Your task to perform on an android device: Go to eBay Image 0: 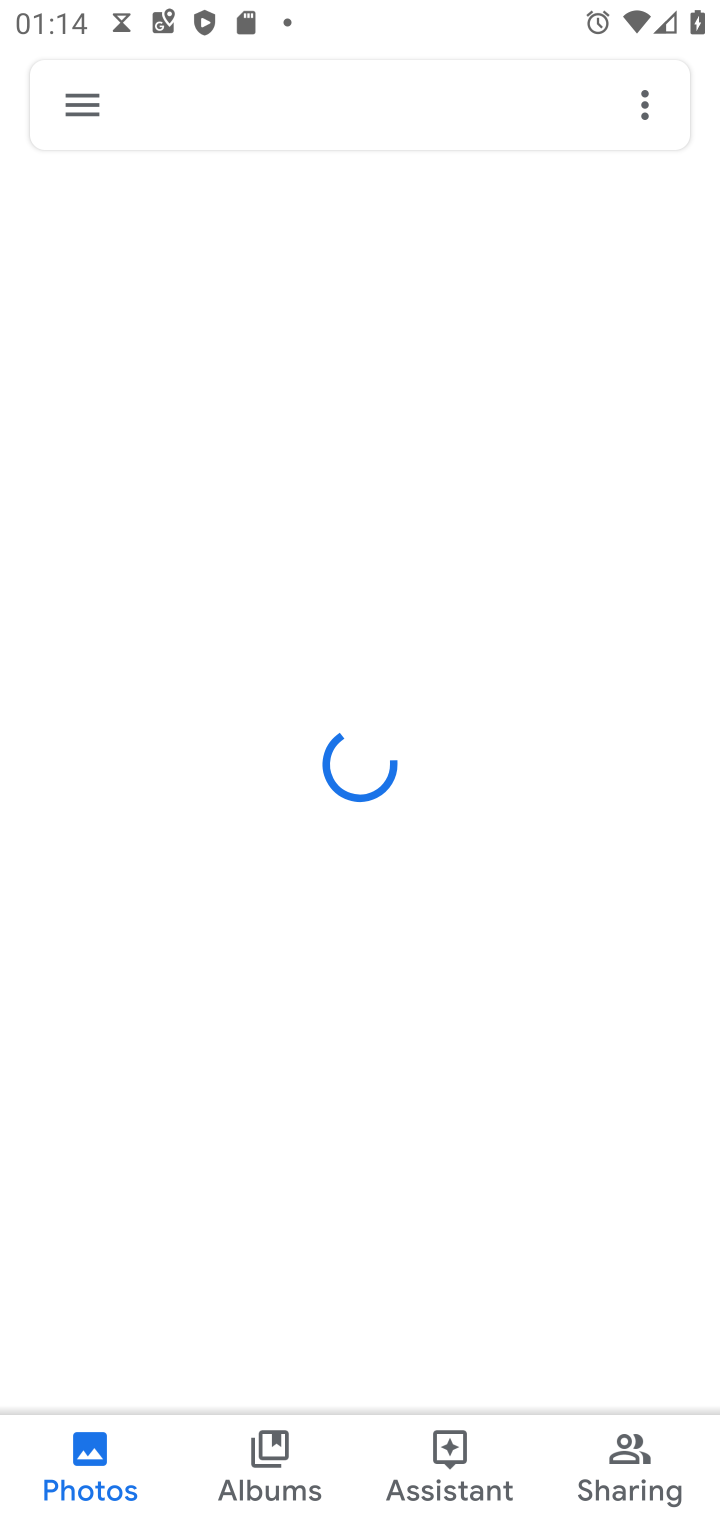
Step 0: press home button
Your task to perform on an android device: Go to eBay Image 1: 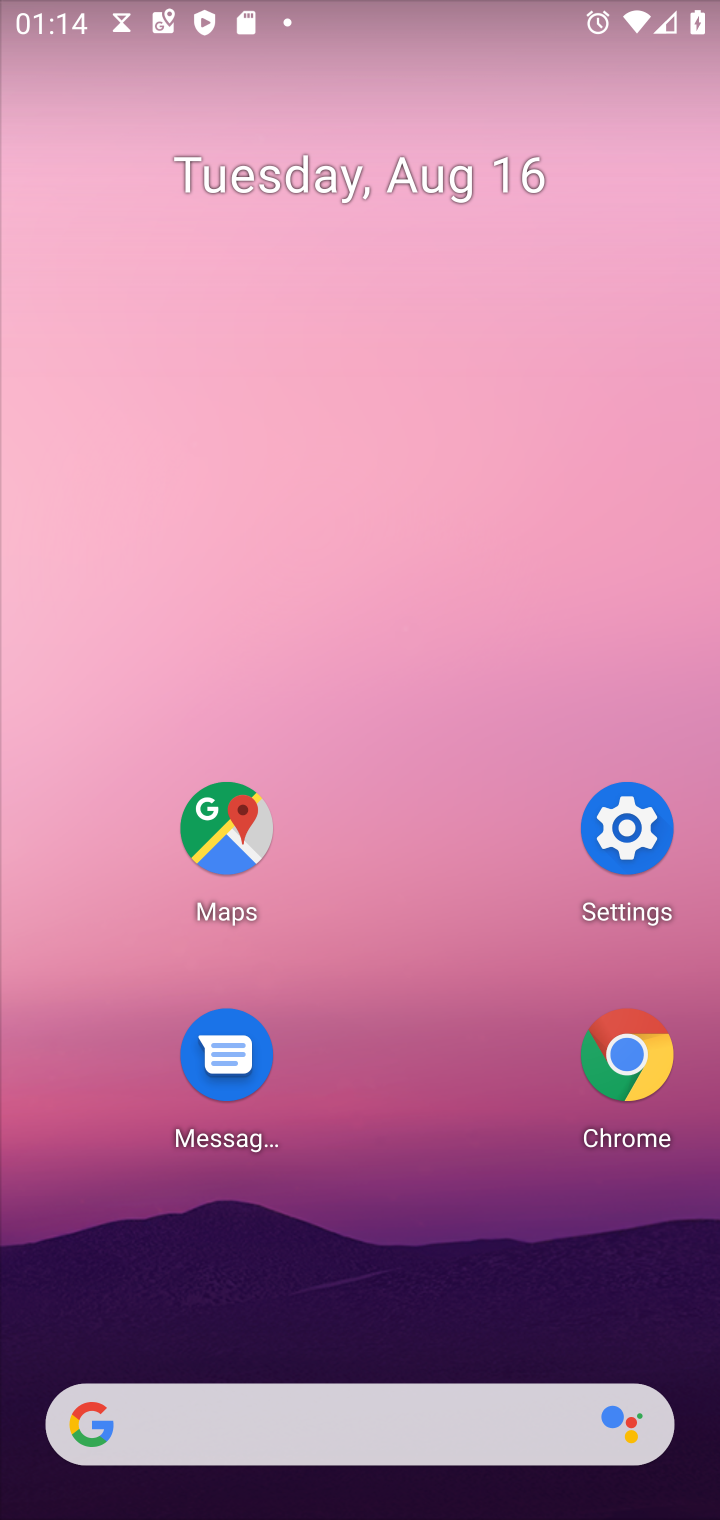
Step 1: click (640, 1054)
Your task to perform on an android device: Go to eBay Image 2: 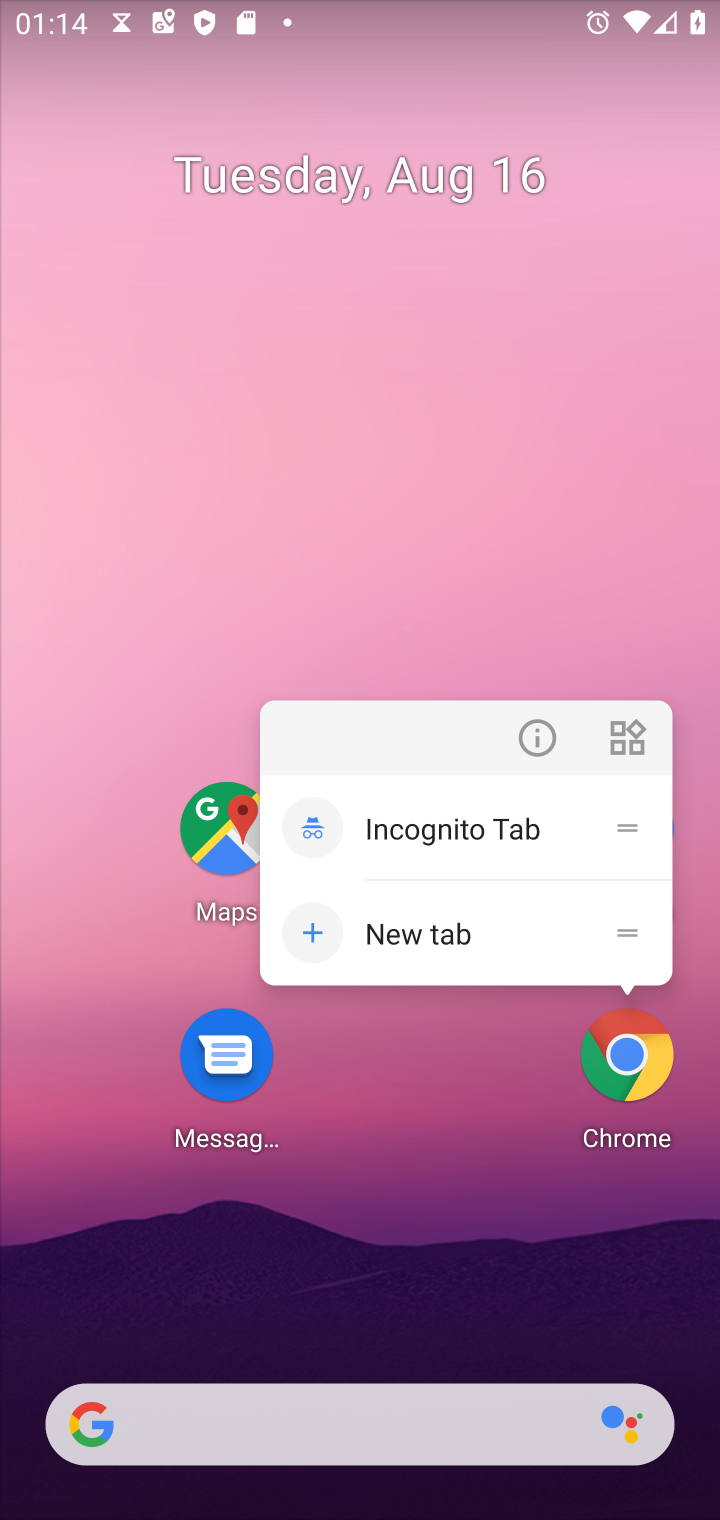
Step 2: click (640, 1061)
Your task to perform on an android device: Go to eBay Image 3: 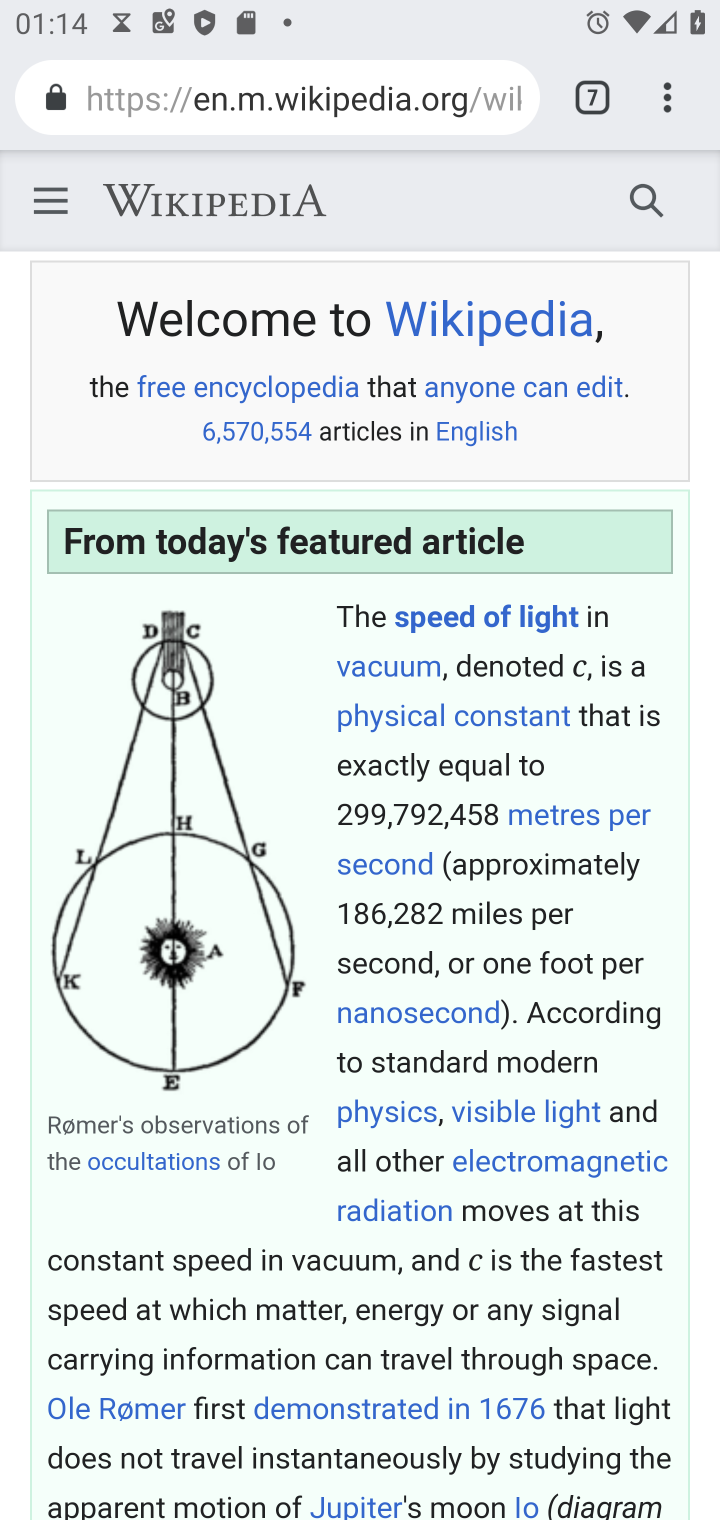
Step 3: drag from (676, 94) to (445, 211)
Your task to perform on an android device: Go to eBay Image 4: 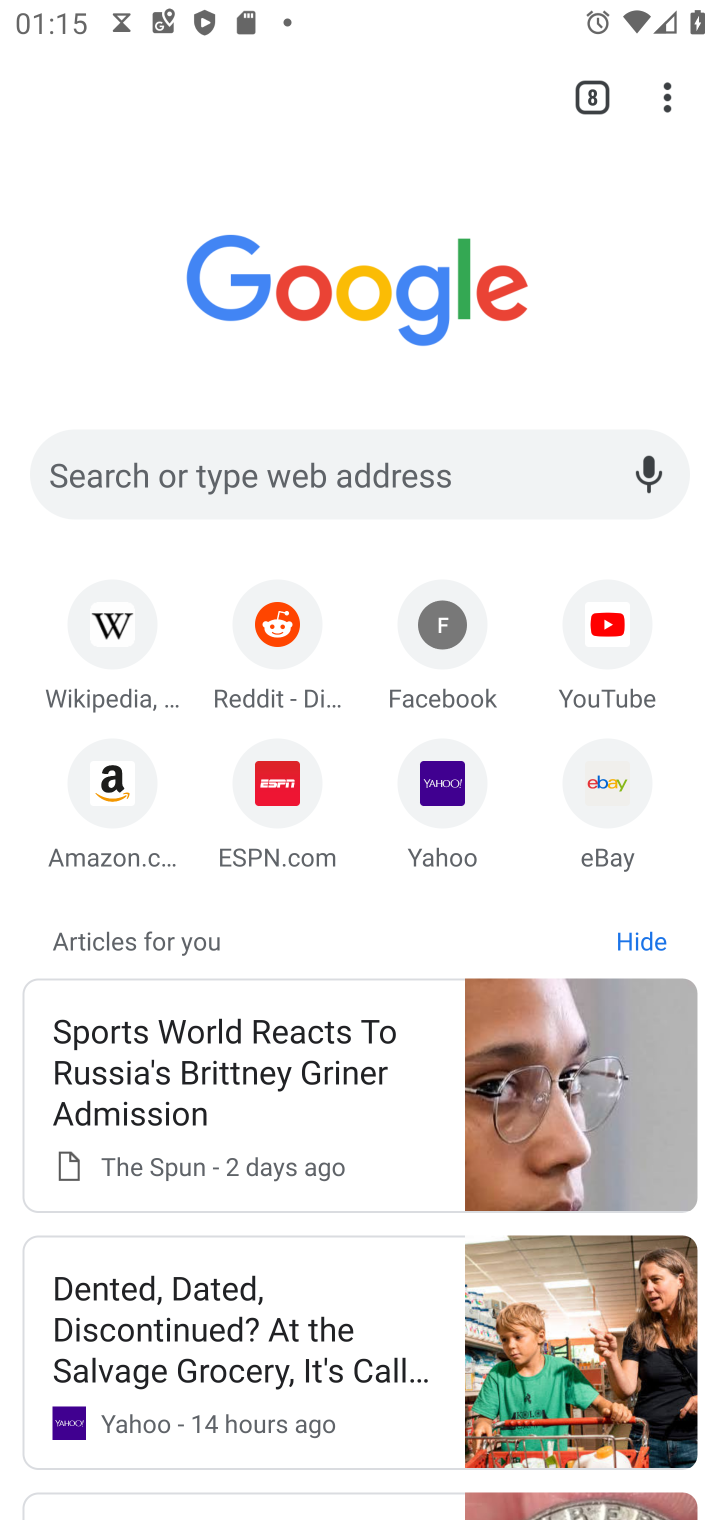
Step 4: click (602, 769)
Your task to perform on an android device: Go to eBay Image 5: 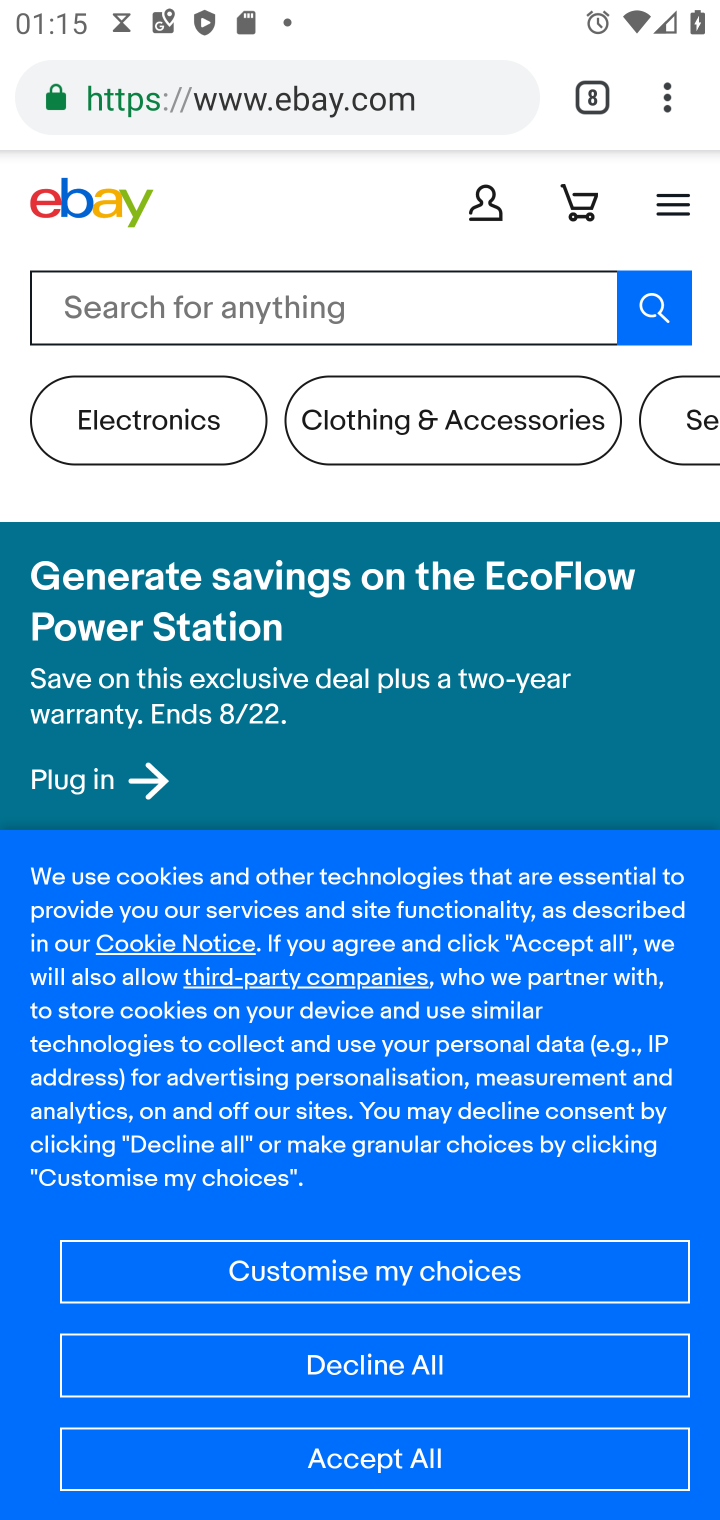
Step 5: click (354, 1453)
Your task to perform on an android device: Go to eBay Image 6: 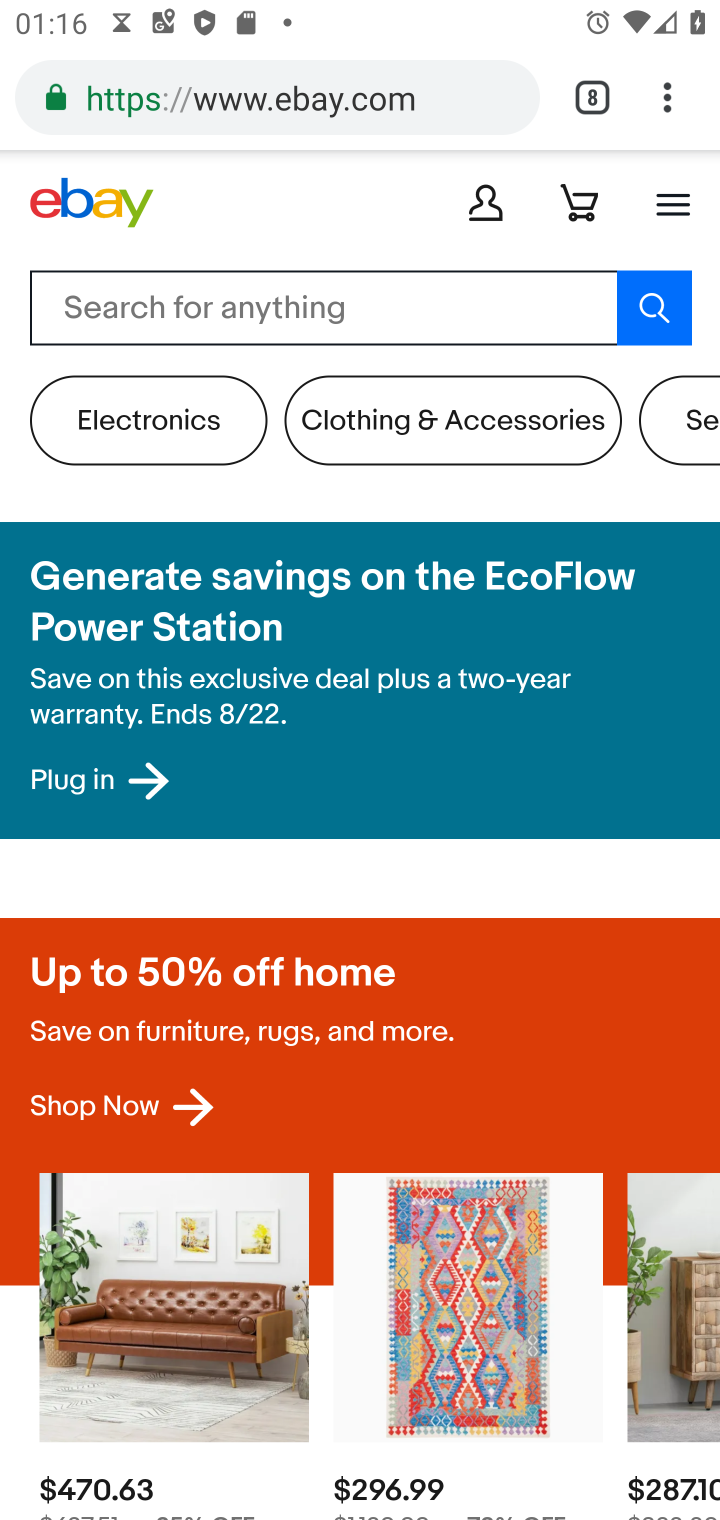
Step 6: task complete